Your task to perform on an android device: Go to Google Image 0: 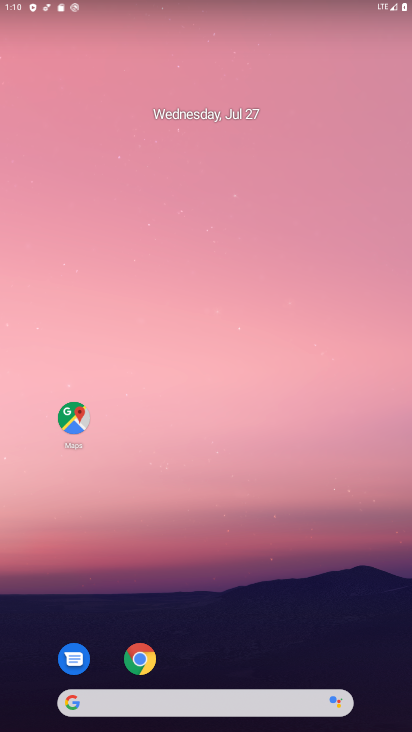
Step 0: drag from (195, 729) to (201, 83)
Your task to perform on an android device: Go to Google Image 1: 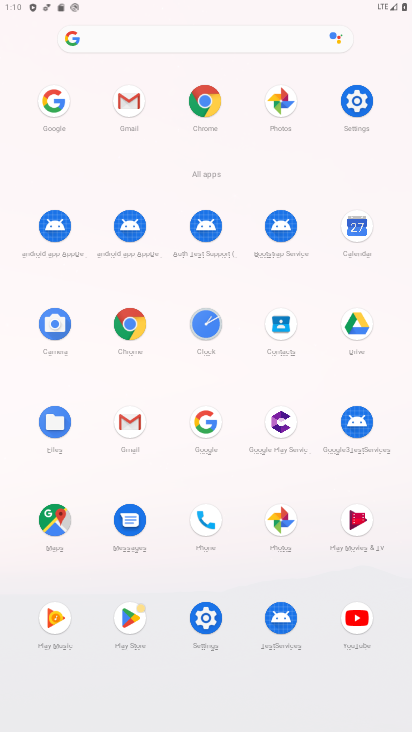
Step 1: click (207, 426)
Your task to perform on an android device: Go to Google Image 2: 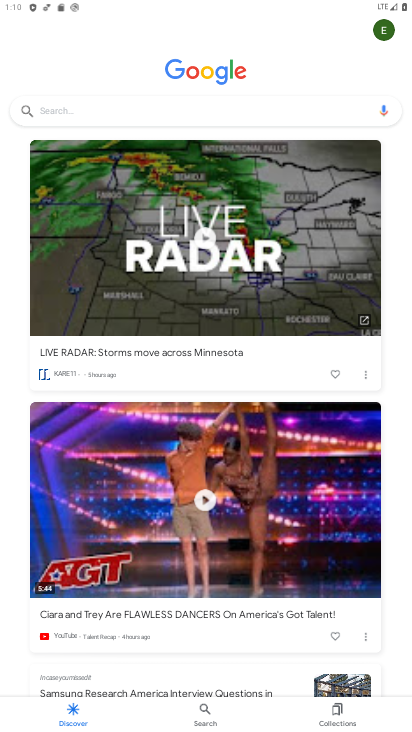
Step 2: task complete